Your task to perform on an android device: Go to internet settings Image 0: 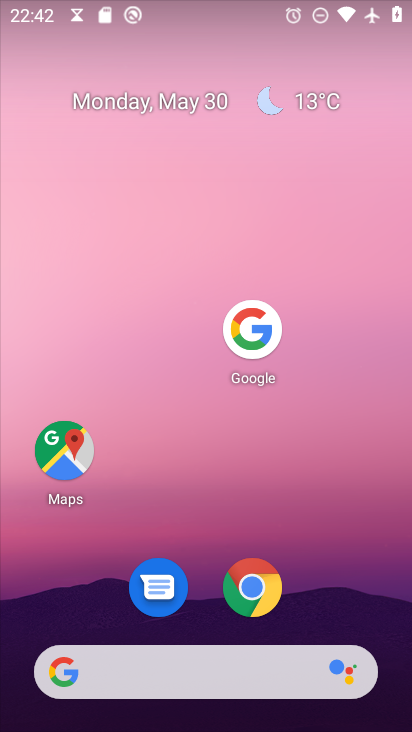
Step 0: drag from (159, 672) to (278, 69)
Your task to perform on an android device: Go to internet settings Image 1: 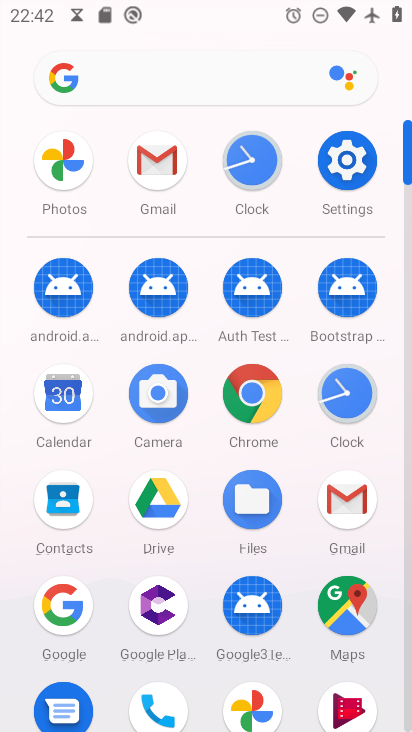
Step 1: click (354, 168)
Your task to perform on an android device: Go to internet settings Image 2: 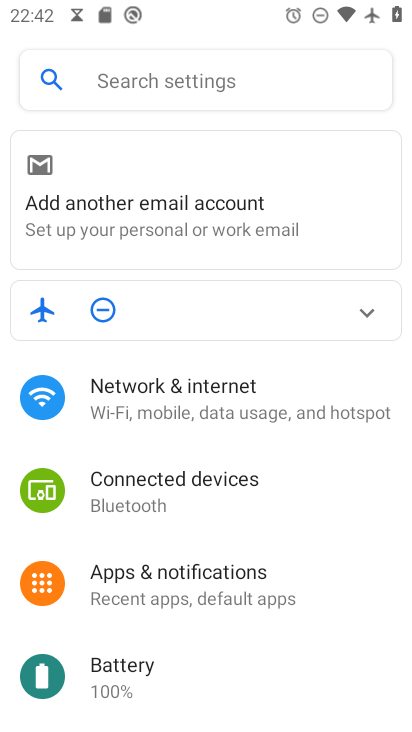
Step 2: click (177, 393)
Your task to perform on an android device: Go to internet settings Image 3: 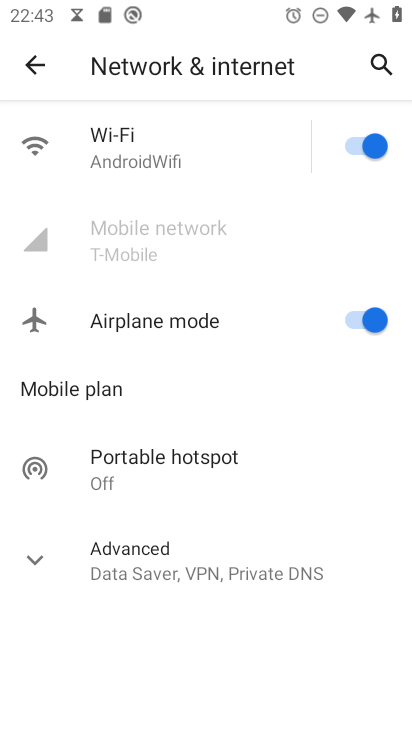
Step 3: task complete